Your task to perform on an android device: clear history in the chrome app Image 0: 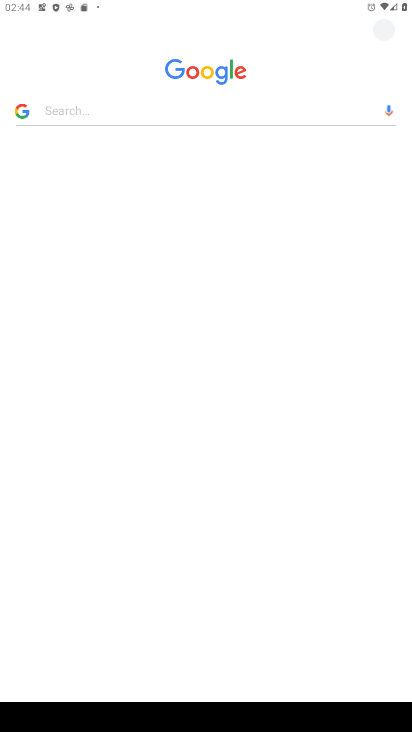
Step 0: press home button
Your task to perform on an android device: clear history in the chrome app Image 1: 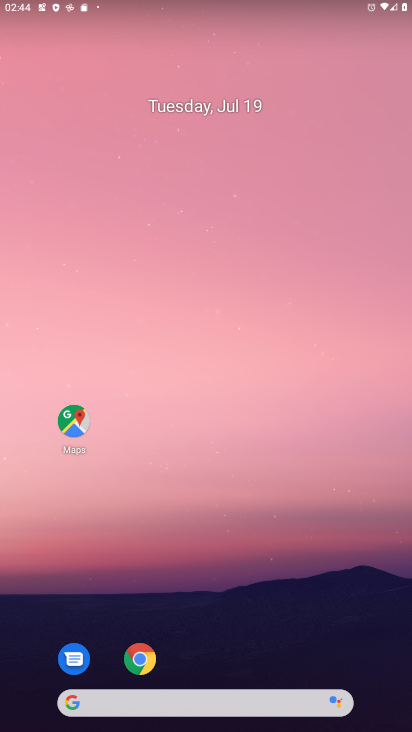
Step 1: click (152, 666)
Your task to perform on an android device: clear history in the chrome app Image 2: 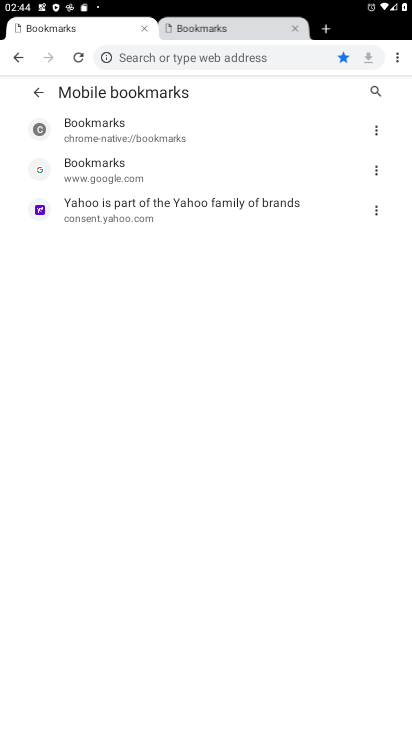
Step 2: drag from (393, 52) to (276, 217)
Your task to perform on an android device: clear history in the chrome app Image 3: 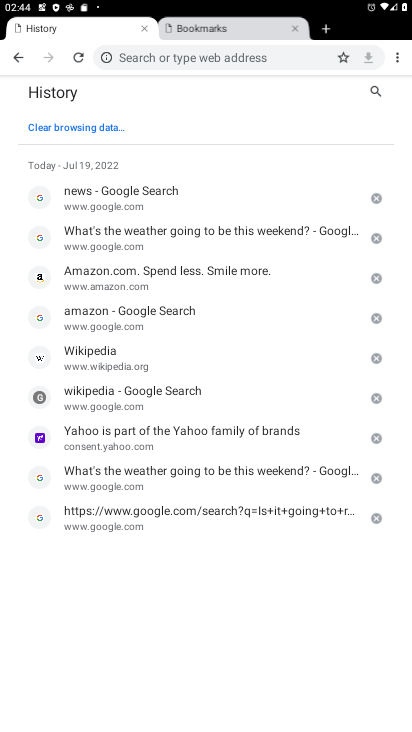
Step 3: click (50, 130)
Your task to perform on an android device: clear history in the chrome app Image 4: 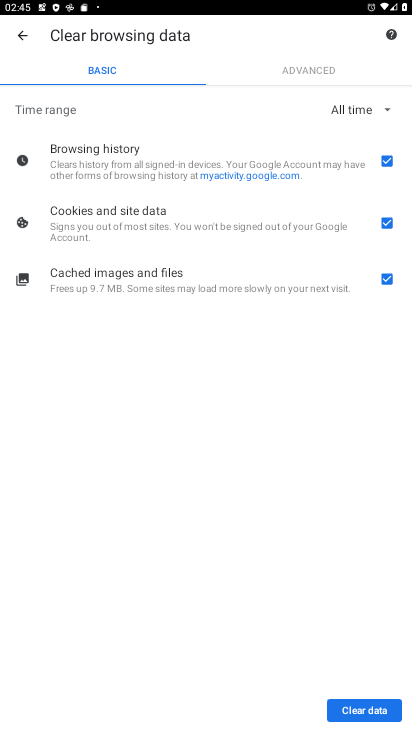
Step 4: click (328, 704)
Your task to perform on an android device: clear history in the chrome app Image 5: 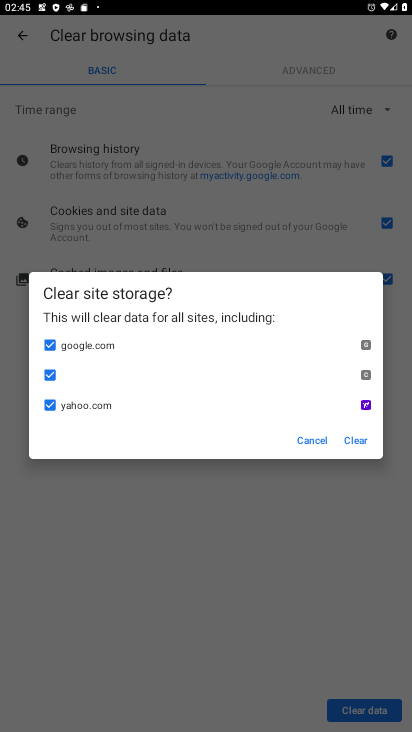
Step 5: click (351, 445)
Your task to perform on an android device: clear history in the chrome app Image 6: 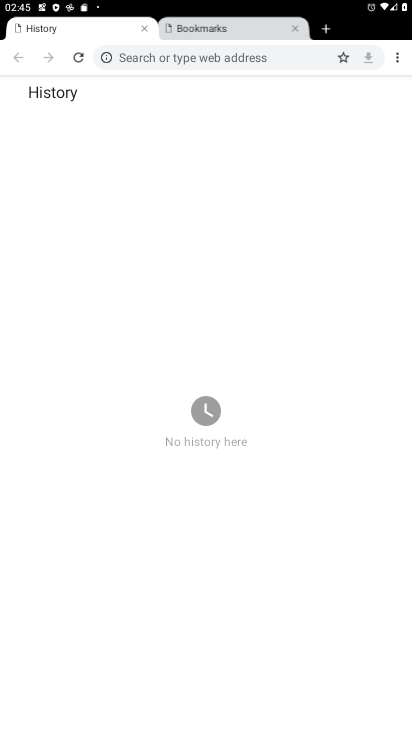
Step 6: task complete